Your task to perform on an android device: allow cookies in the chrome app Image 0: 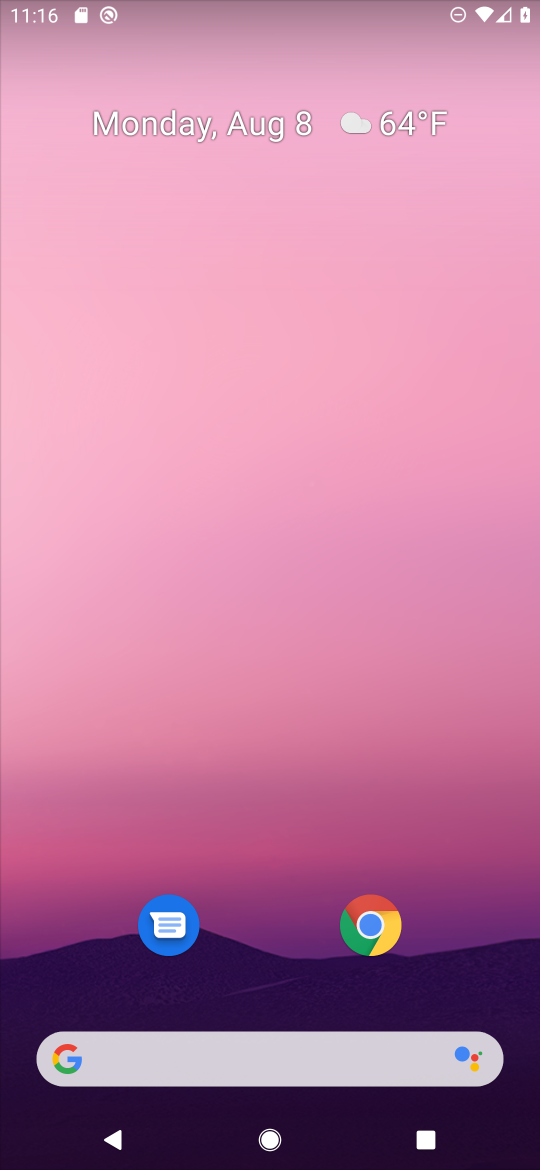
Step 0: drag from (253, 952) to (405, 192)
Your task to perform on an android device: allow cookies in the chrome app Image 1: 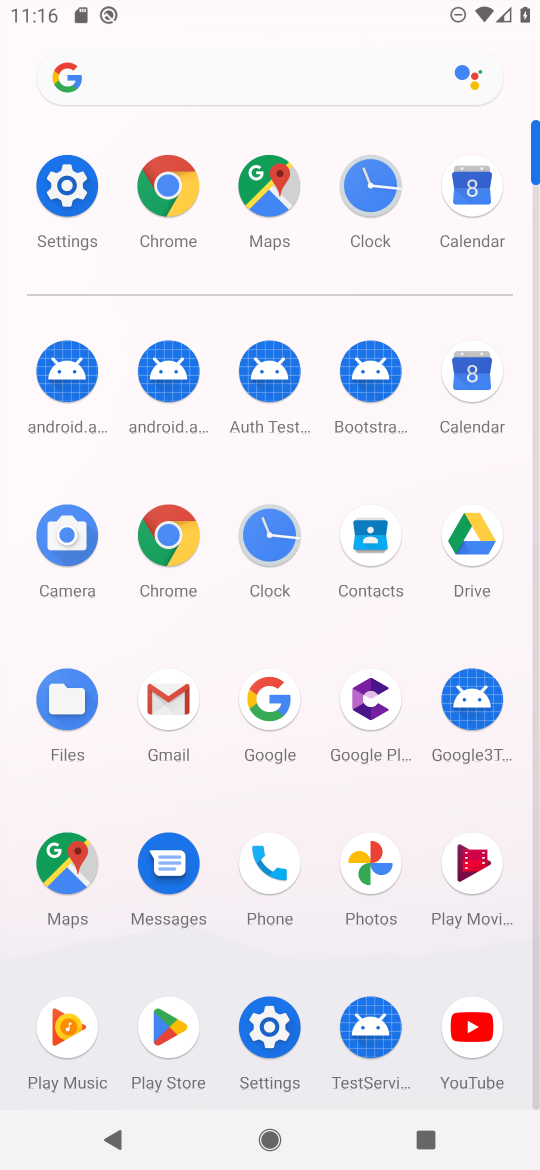
Step 1: click (173, 534)
Your task to perform on an android device: allow cookies in the chrome app Image 2: 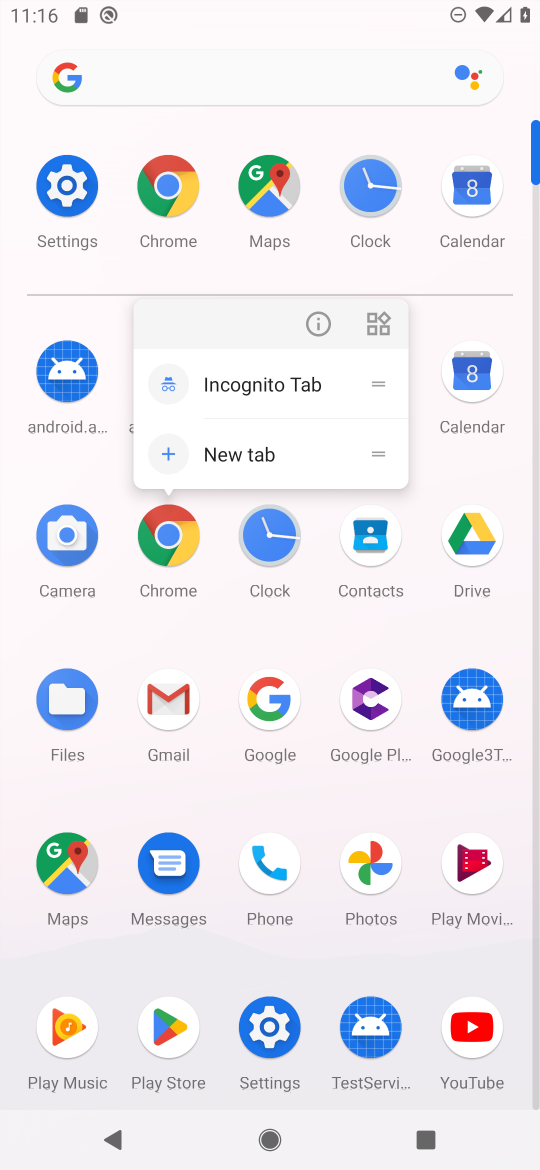
Step 2: click (169, 536)
Your task to perform on an android device: allow cookies in the chrome app Image 3: 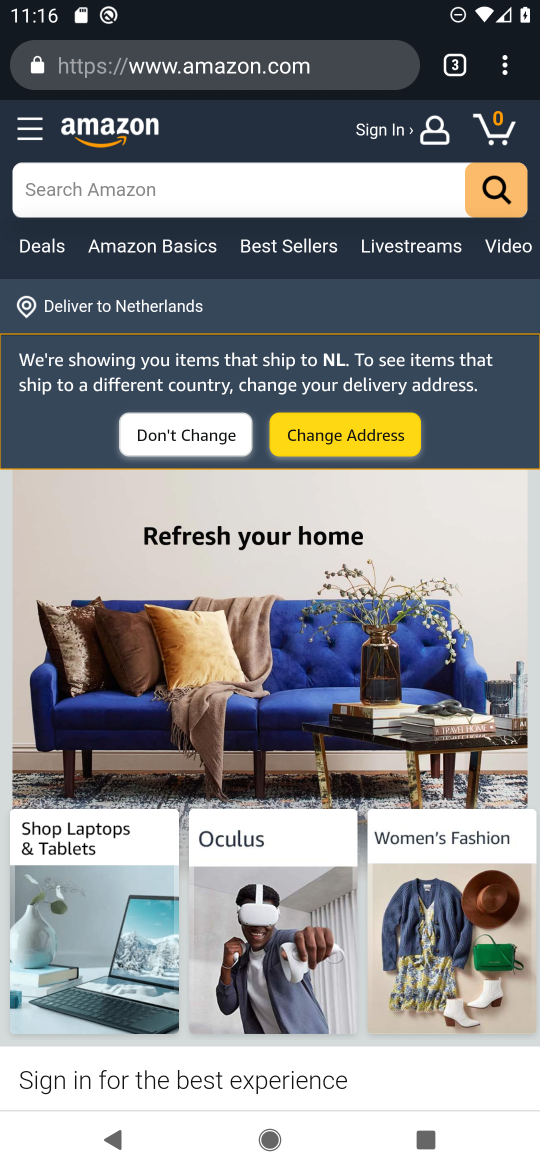
Step 3: drag from (501, 62) to (240, 447)
Your task to perform on an android device: allow cookies in the chrome app Image 4: 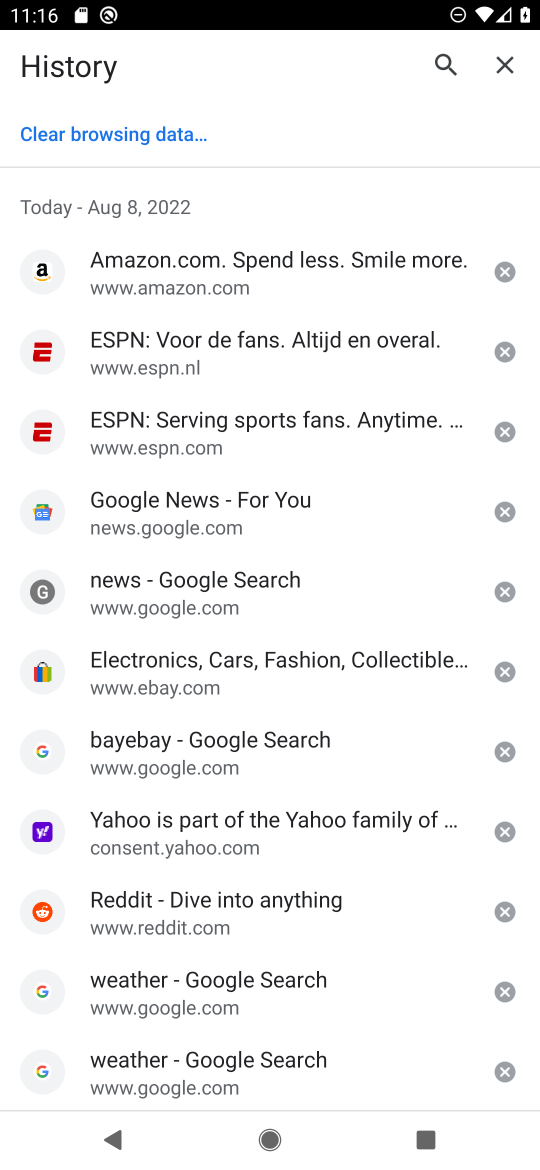
Step 4: click (145, 132)
Your task to perform on an android device: allow cookies in the chrome app Image 5: 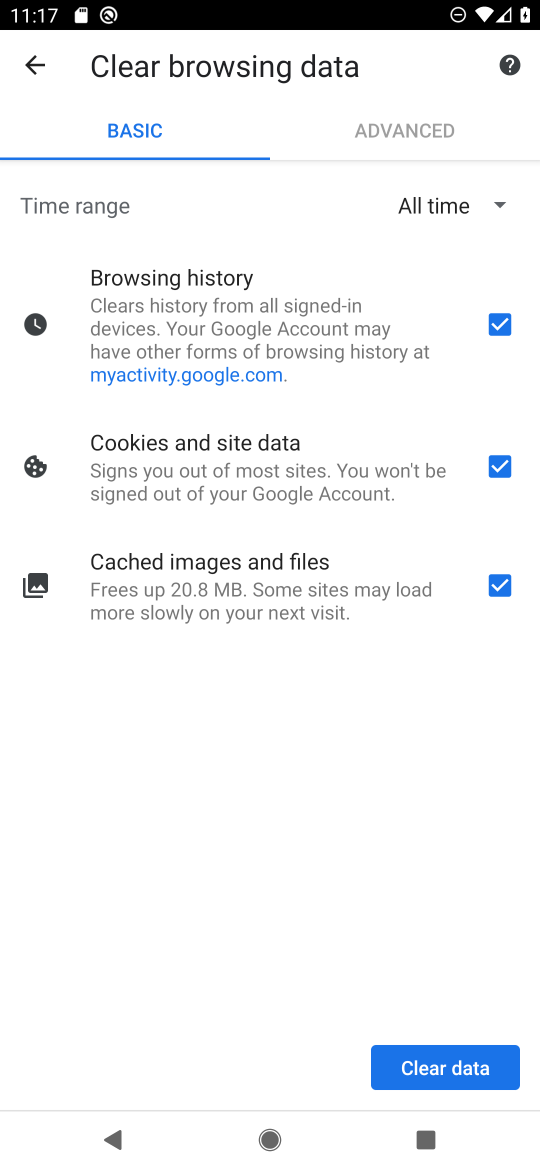
Step 5: click (478, 1059)
Your task to perform on an android device: allow cookies in the chrome app Image 6: 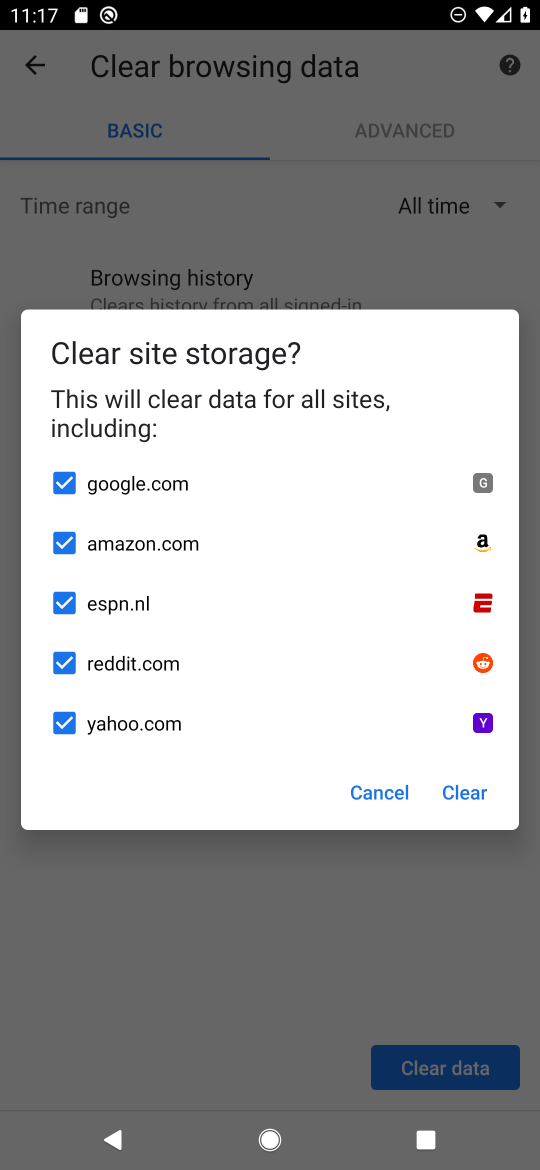
Step 6: click (475, 801)
Your task to perform on an android device: allow cookies in the chrome app Image 7: 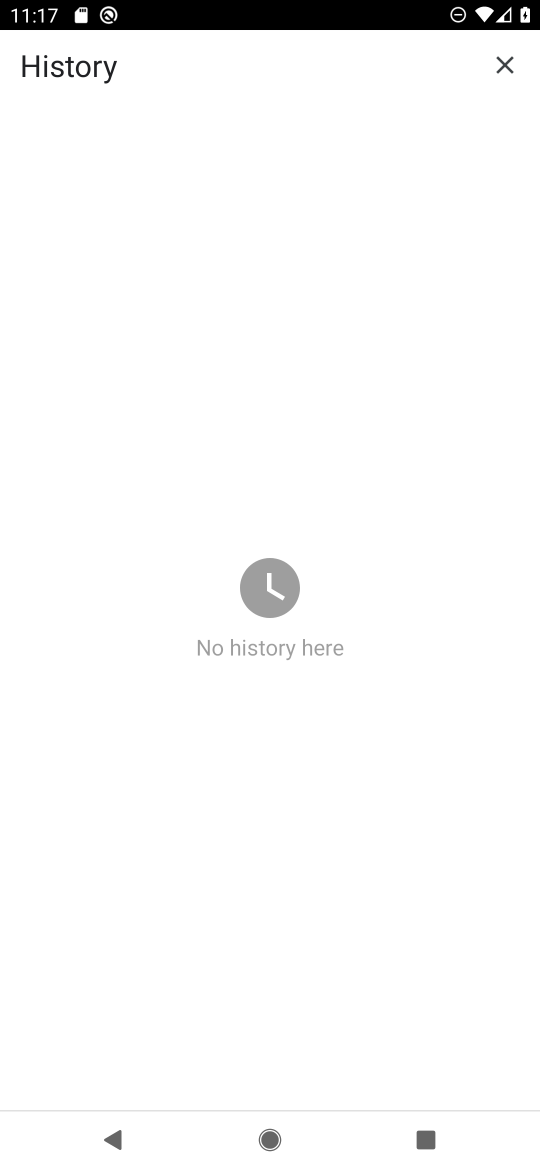
Step 7: task complete